Your task to perform on an android device: Go to internet settings Image 0: 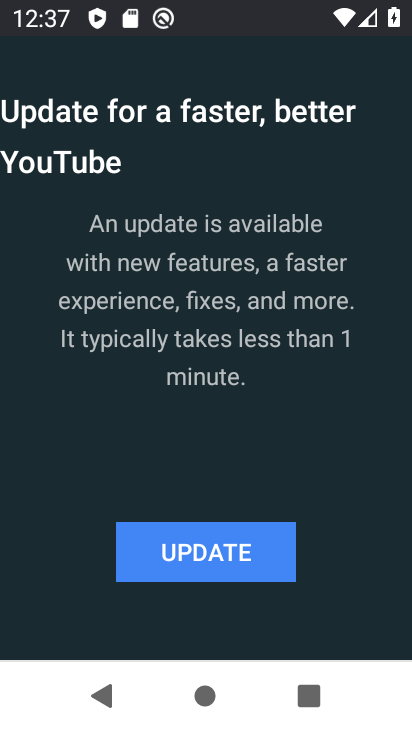
Step 0: drag from (212, 586) to (95, 585)
Your task to perform on an android device: Go to internet settings Image 1: 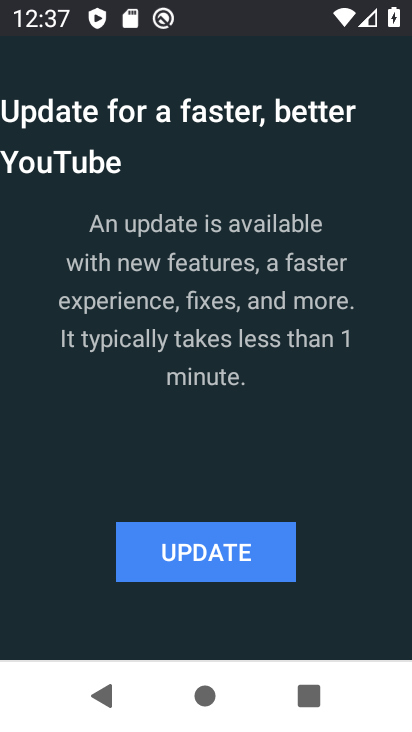
Step 1: press home button
Your task to perform on an android device: Go to internet settings Image 2: 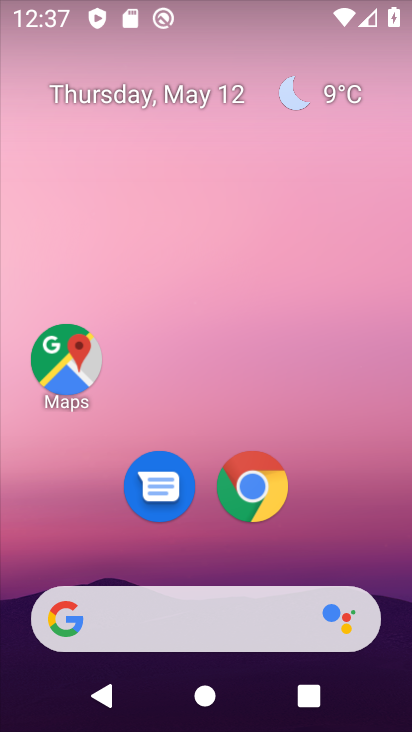
Step 2: drag from (220, 585) to (247, 195)
Your task to perform on an android device: Go to internet settings Image 3: 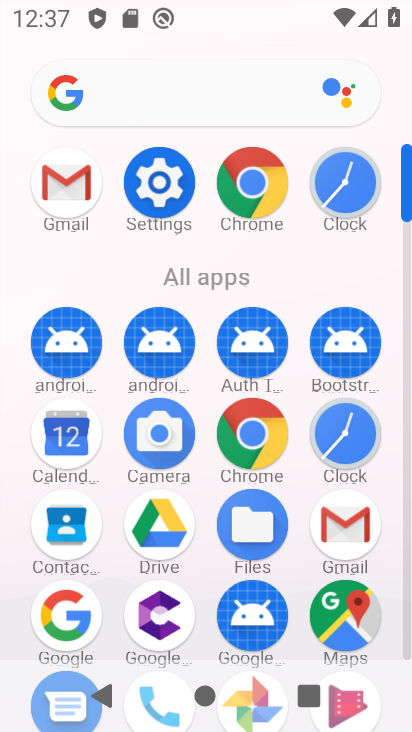
Step 3: click (168, 181)
Your task to perform on an android device: Go to internet settings Image 4: 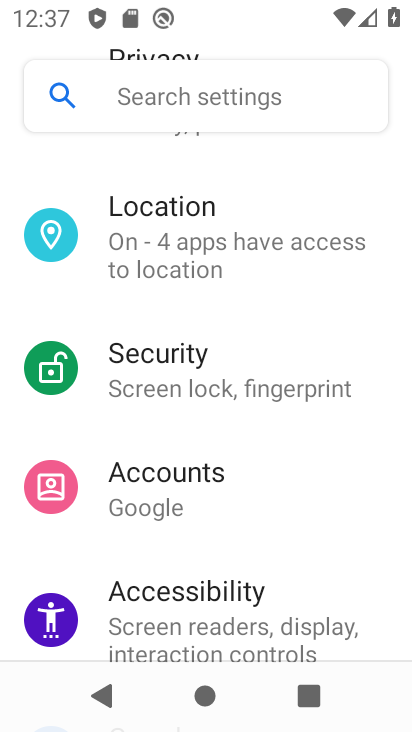
Step 4: drag from (167, 158) to (166, 524)
Your task to perform on an android device: Go to internet settings Image 5: 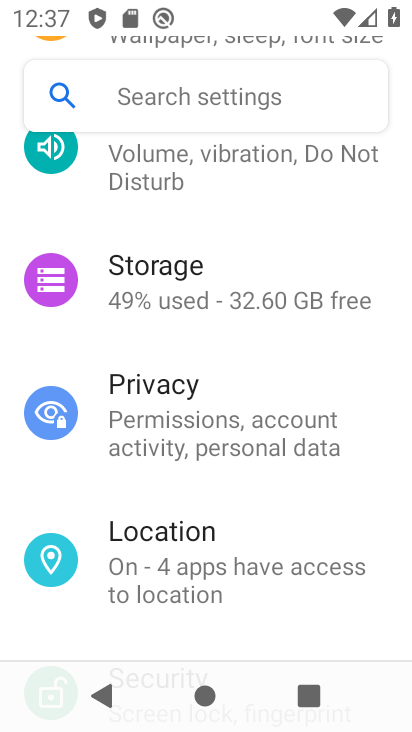
Step 5: drag from (138, 169) to (138, 493)
Your task to perform on an android device: Go to internet settings Image 6: 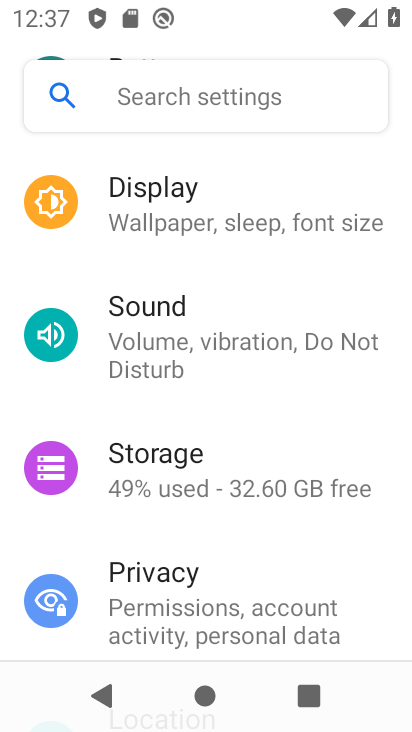
Step 6: drag from (169, 189) to (164, 592)
Your task to perform on an android device: Go to internet settings Image 7: 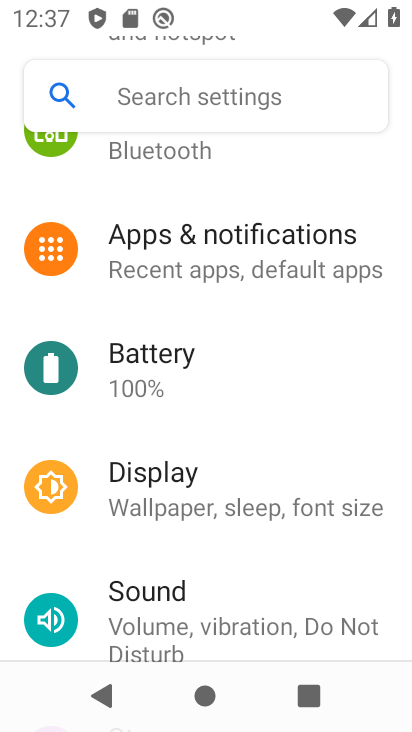
Step 7: drag from (150, 188) to (146, 567)
Your task to perform on an android device: Go to internet settings Image 8: 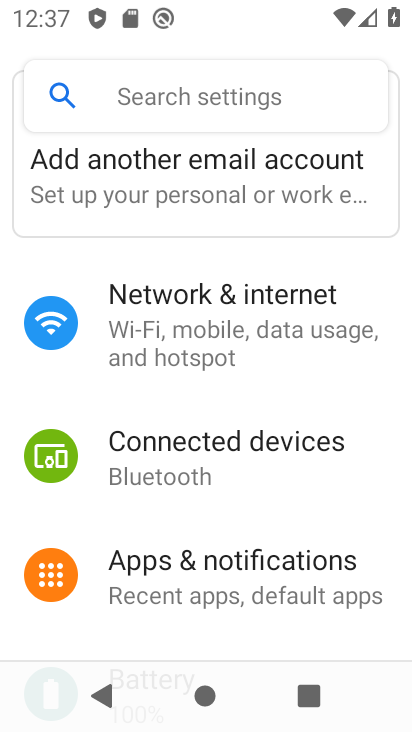
Step 8: click (170, 331)
Your task to perform on an android device: Go to internet settings Image 9: 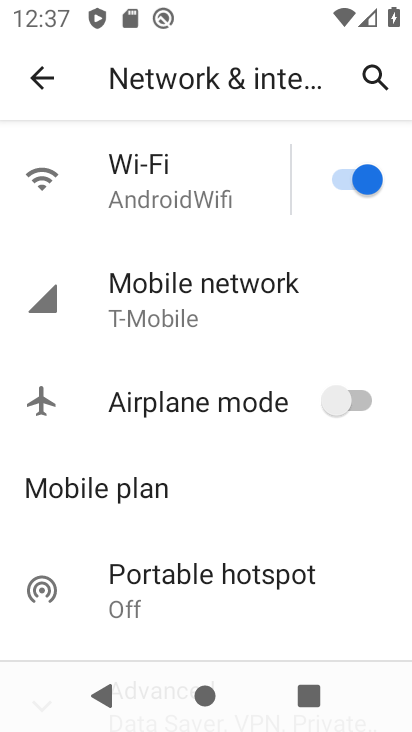
Step 9: drag from (212, 610) to (218, 285)
Your task to perform on an android device: Go to internet settings Image 10: 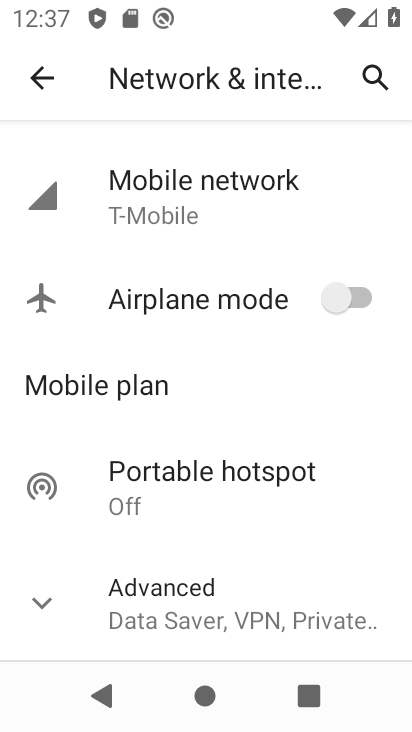
Step 10: click (258, 612)
Your task to perform on an android device: Go to internet settings Image 11: 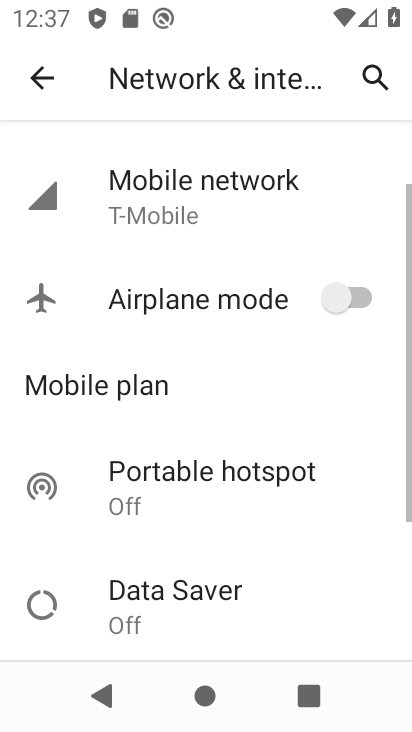
Step 11: task complete